Your task to perform on an android device: open app "NewsBreak: Local News & Alerts" (install if not already installed) and go to login screen Image 0: 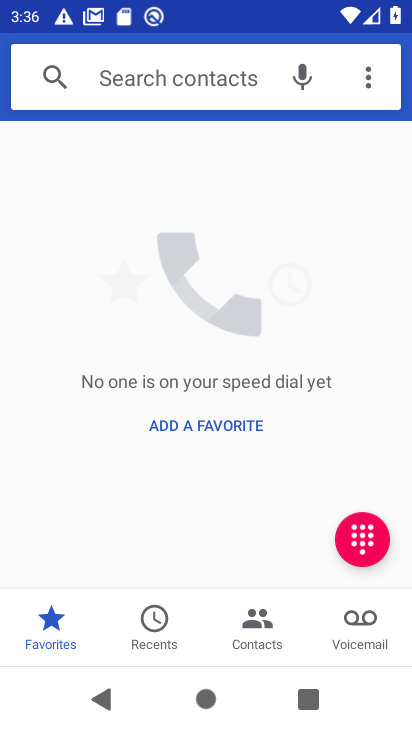
Step 0: press home button
Your task to perform on an android device: open app "NewsBreak: Local News & Alerts" (install if not already installed) and go to login screen Image 1: 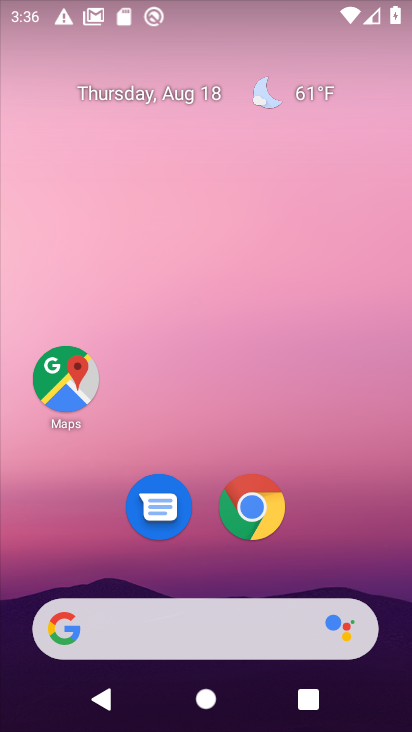
Step 1: drag from (195, 565) to (252, 0)
Your task to perform on an android device: open app "NewsBreak: Local News & Alerts" (install if not already installed) and go to login screen Image 2: 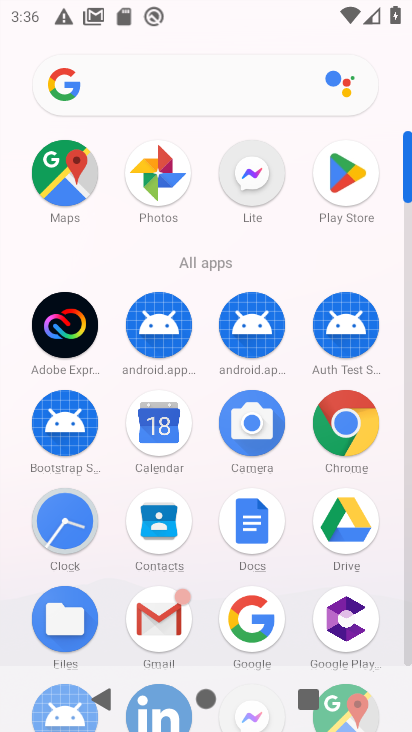
Step 2: click (351, 177)
Your task to perform on an android device: open app "NewsBreak: Local News & Alerts" (install if not already installed) and go to login screen Image 3: 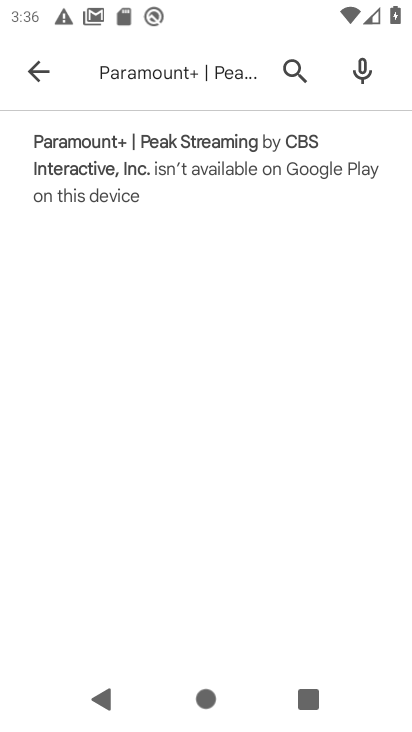
Step 3: click (293, 67)
Your task to perform on an android device: open app "NewsBreak: Local News & Alerts" (install if not already installed) and go to login screen Image 4: 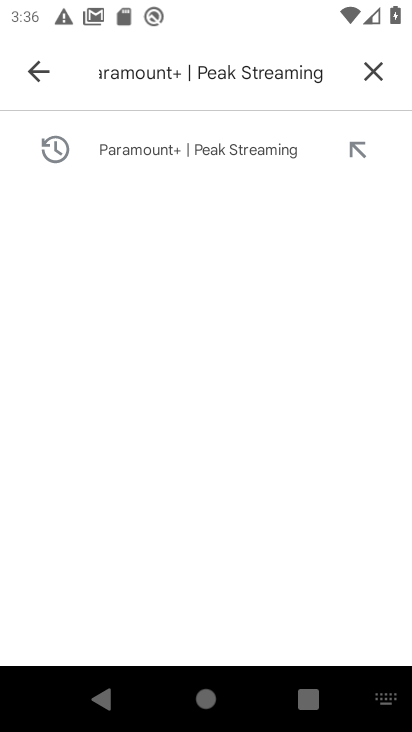
Step 4: click (370, 64)
Your task to perform on an android device: open app "NewsBreak: Local News & Alerts" (install if not already installed) and go to login screen Image 5: 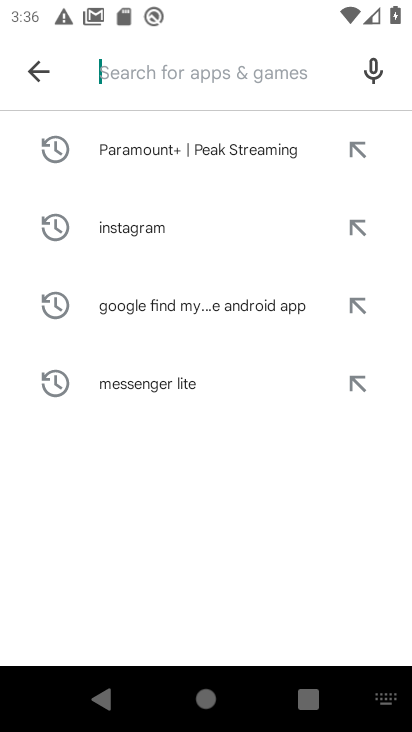
Step 5: type "NewsBreak"
Your task to perform on an android device: open app "NewsBreak: Local News & Alerts" (install if not already installed) and go to login screen Image 6: 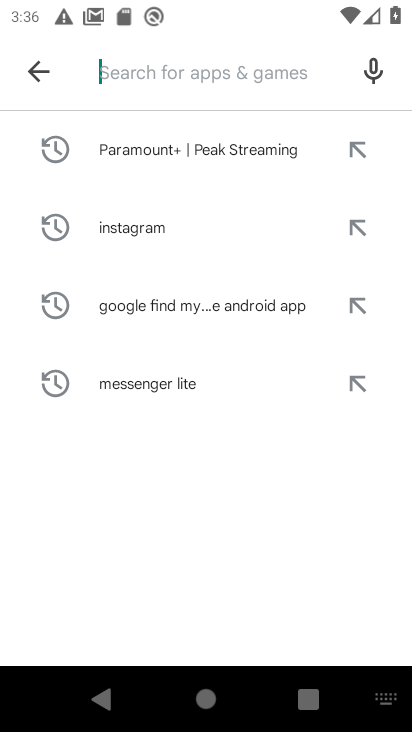
Step 6: click (225, 472)
Your task to perform on an android device: open app "NewsBreak: Local News & Alerts" (install if not already installed) and go to login screen Image 7: 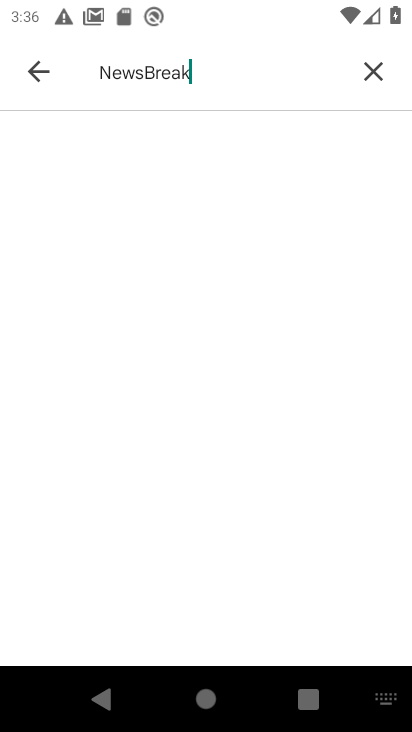
Step 7: click (364, 75)
Your task to perform on an android device: open app "NewsBreak: Local News & Alerts" (install if not already installed) and go to login screen Image 8: 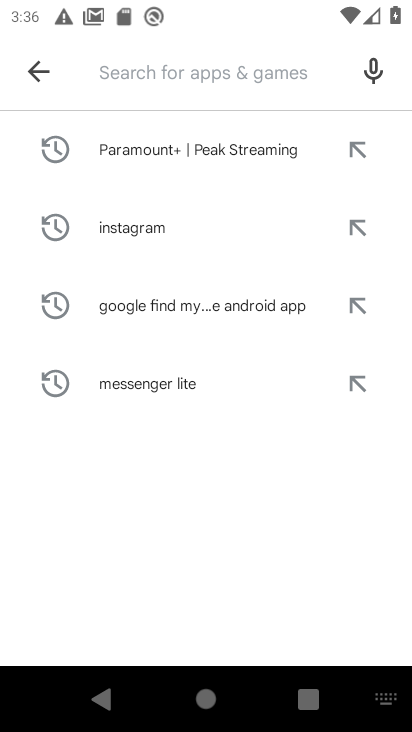
Step 8: press back button
Your task to perform on an android device: open app "NewsBreak: Local News & Alerts" (install if not already installed) and go to login screen Image 9: 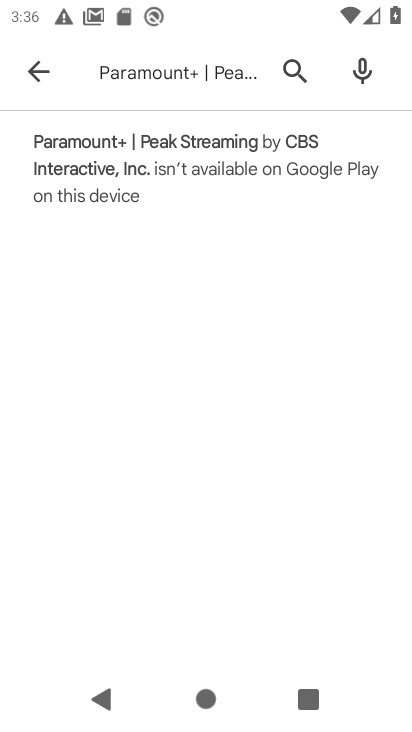
Step 9: press back button
Your task to perform on an android device: open app "NewsBreak: Local News & Alerts" (install if not already installed) and go to login screen Image 10: 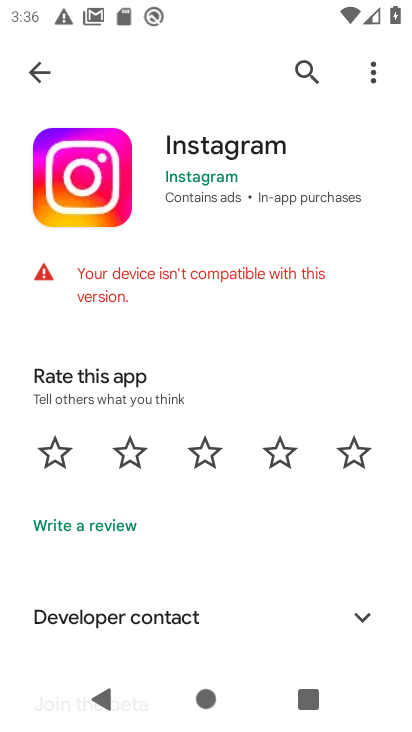
Step 10: press back button
Your task to perform on an android device: open app "NewsBreak: Local News & Alerts" (install if not already installed) and go to login screen Image 11: 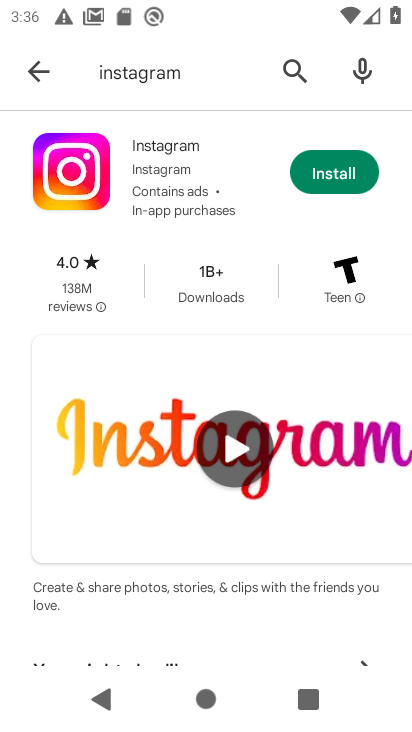
Step 11: click (264, 73)
Your task to perform on an android device: open app "NewsBreak: Local News & Alerts" (install if not already installed) and go to login screen Image 12: 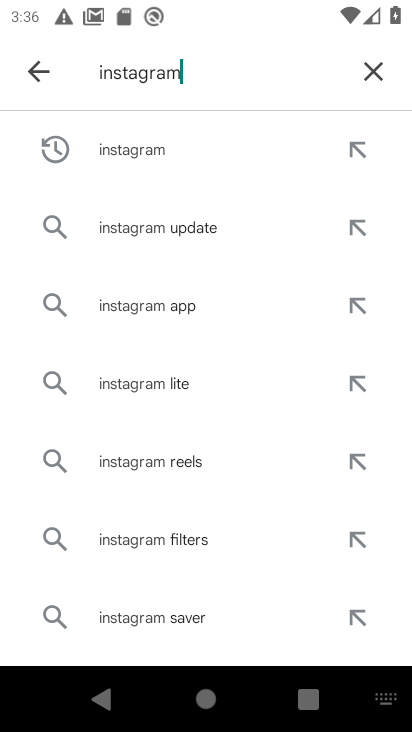
Step 12: click (371, 71)
Your task to perform on an android device: open app "NewsBreak: Local News & Alerts" (install if not already installed) and go to login screen Image 13: 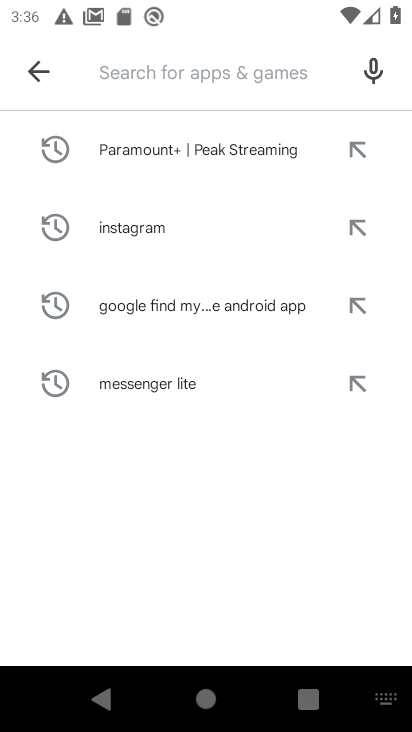
Step 13: type "NewsBreak"
Your task to perform on an android device: open app "NewsBreak: Local News & Alerts" (install if not already installed) and go to login screen Image 14: 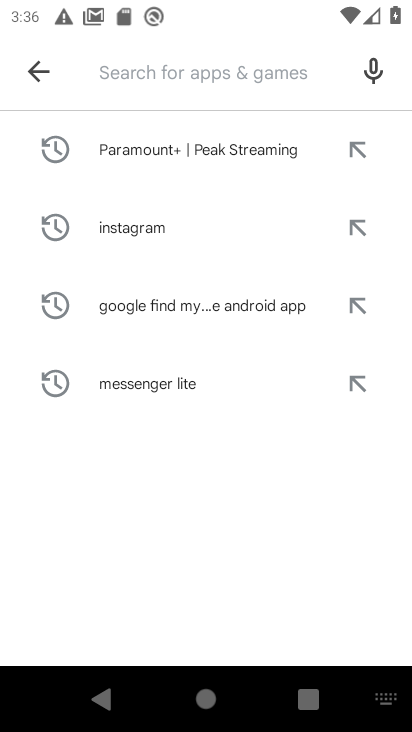
Step 14: click (248, 533)
Your task to perform on an android device: open app "NewsBreak: Local News & Alerts" (install if not already installed) and go to login screen Image 15: 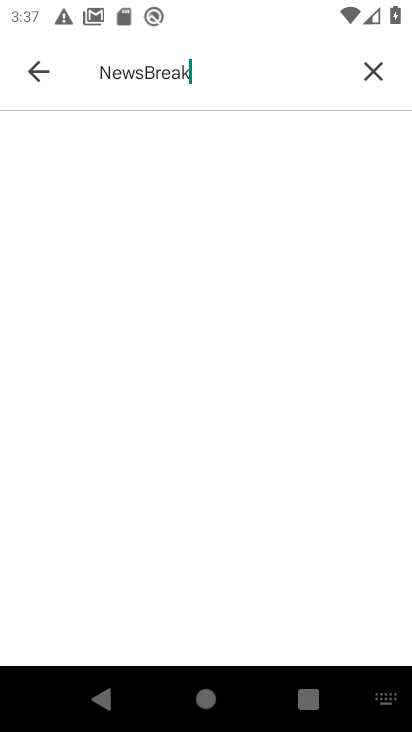
Step 15: click (390, 43)
Your task to perform on an android device: open app "NewsBreak: Local News & Alerts" (install if not already installed) and go to login screen Image 16: 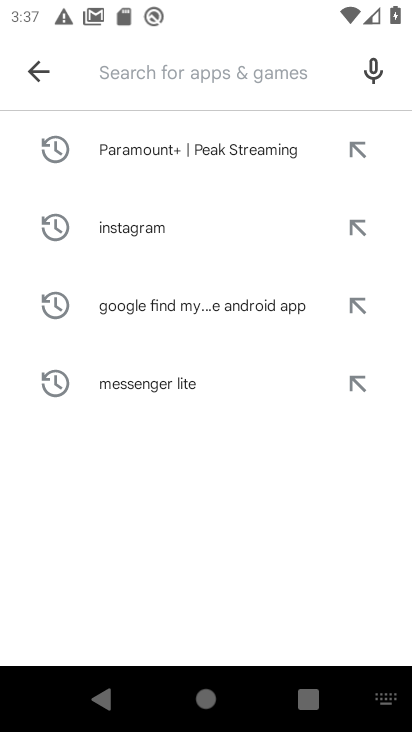
Step 16: click (181, 65)
Your task to perform on an android device: open app "NewsBreak: Local News & Alerts" (install if not already installed) and go to login screen Image 17: 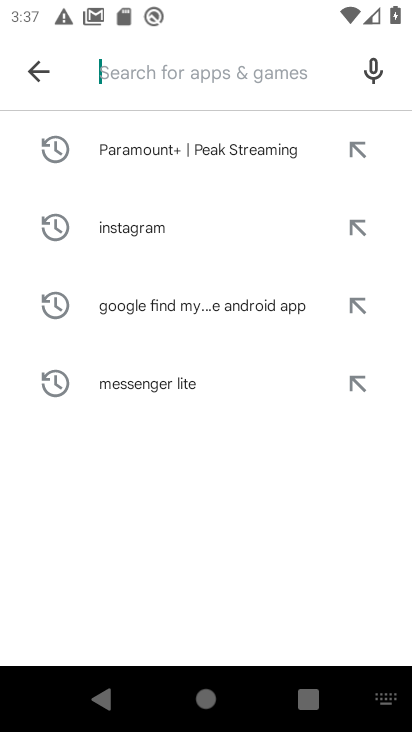
Step 17: type "NewsBreak: Local News & Alerts"
Your task to perform on an android device: open app "NewsBreak: Local News & Alerts" (install if not already installed) and go to login screen Image 18: 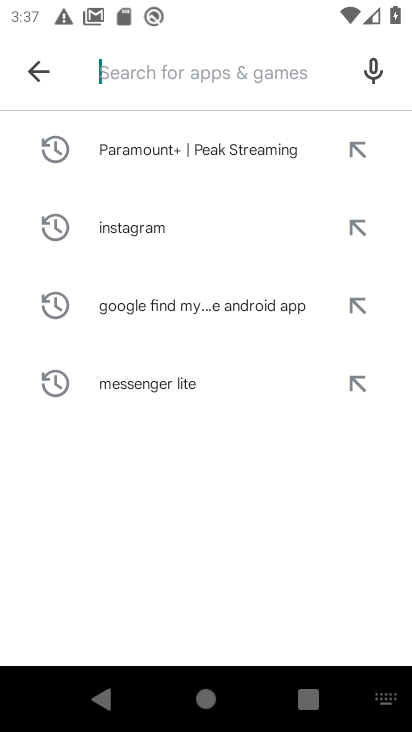
Step 18: click (42, 564)
Your task to perform on an android device: open app "NewsBreak: Local News & Alerts" (install if not already installed) and go to login screen Image 19: 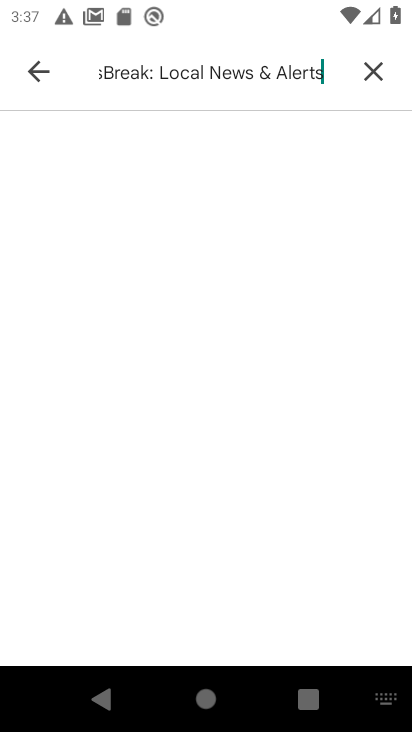
Step 19: task complete